Your task to perform on an android device: change the upload size in google photos Image 0: 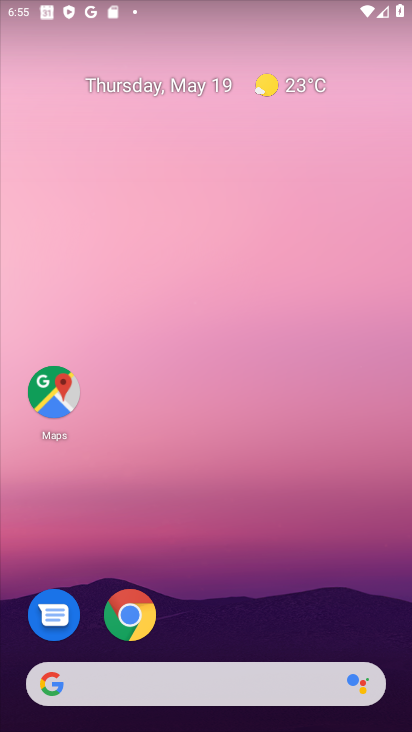
Step 0: drag from (314, 633) to (228, 49)
Your task to perform on an android device: change the upload size in google photos Image 1: 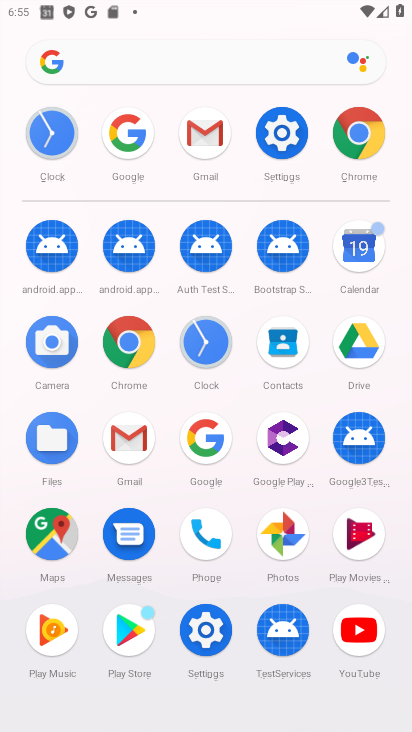
Step 1: click (278, 545)
Your task to perform on an android device: change the upload size in google photos Image 2: 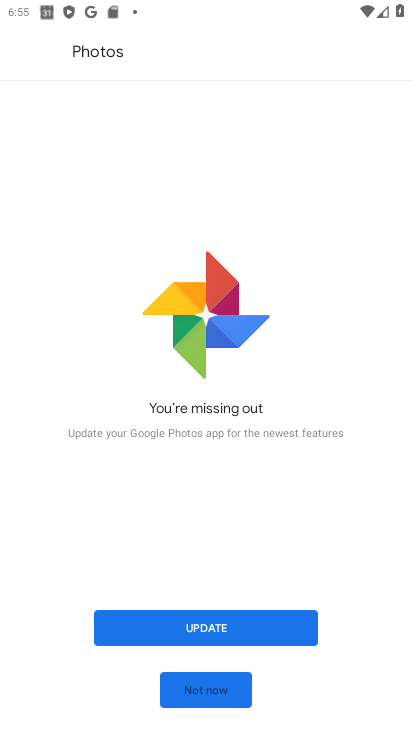
Step 2: click (238, 618)
Your task to perform on an android device: change the upload size in google photos Image 3: 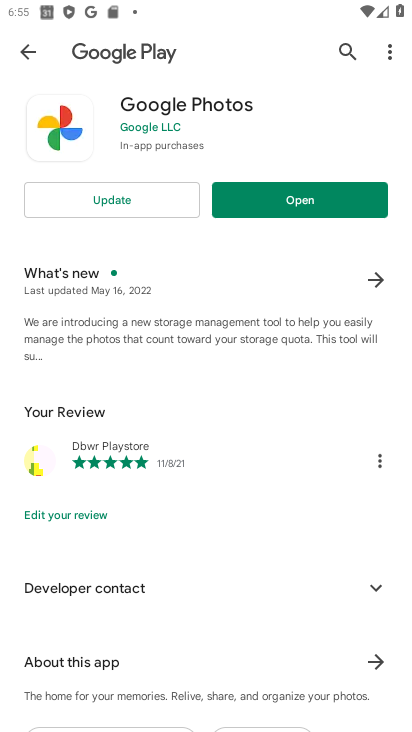
Step 3: click (135, 218)
Your task to perform on an android device: change the upload size in google photos Image 4: 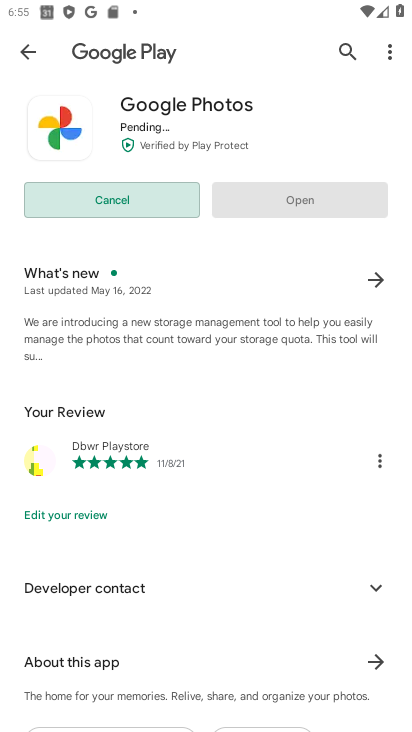
Step 4: click (136, 214)
Your task to perform on an android device: change the upload size in google photos Image 5: 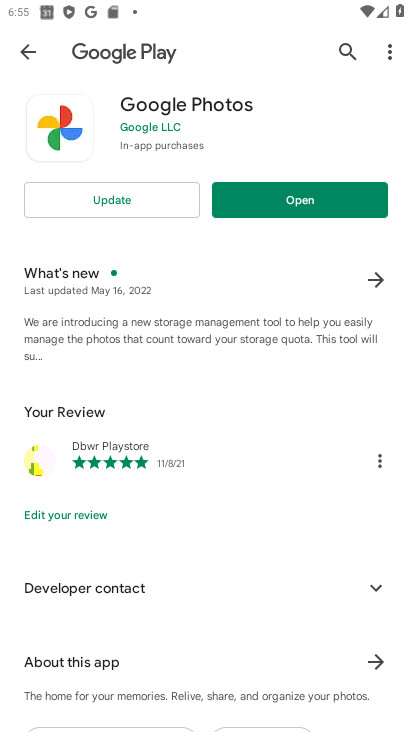
Step 5: click (146, 211)
Your task to perform on an android device: change the upload size in google photos Image 6: 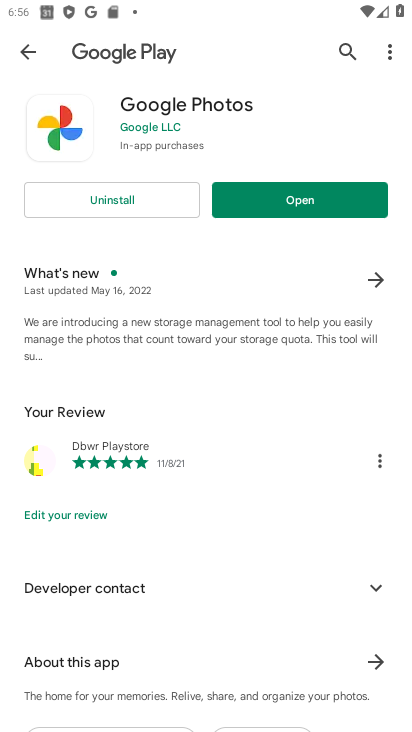
Step 6: click (280, 192)
Your task to perform on an android device: change the upload size in google photos Image 7: 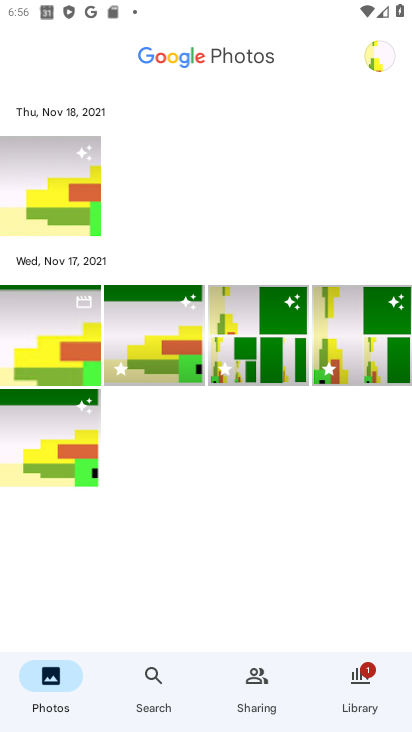
Step 7: click (382, 57)
Your task to perform on an android device: change the upload size in google photos Image 8: 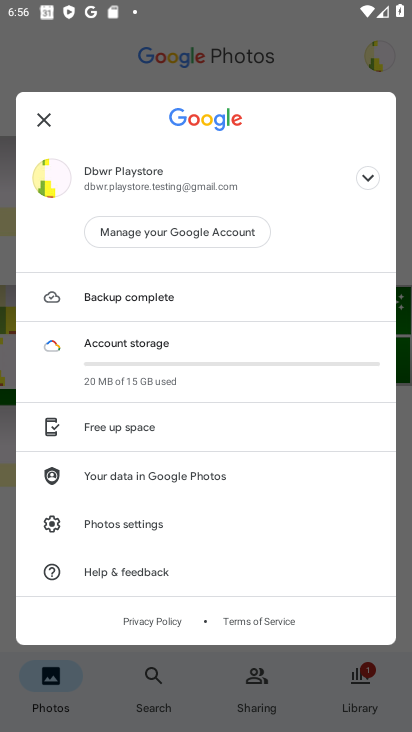
Step 8: click (198, 520)
Your task to perform on an android device: change the upload size in google photos Image 9: 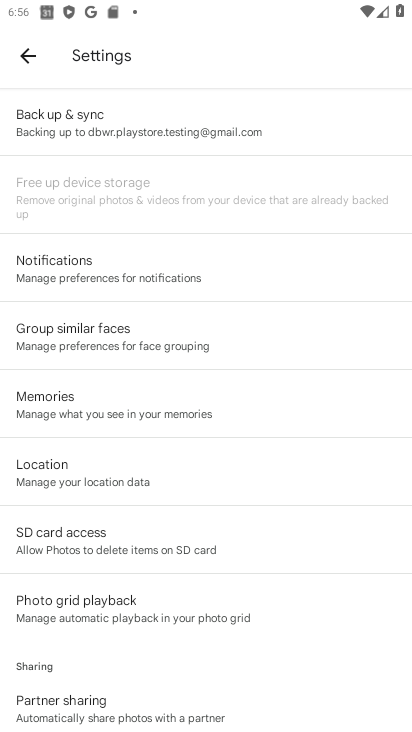
Step 9: click (256, 128)
Your task to perform on an android device: change the upload size in google photos Image 10: 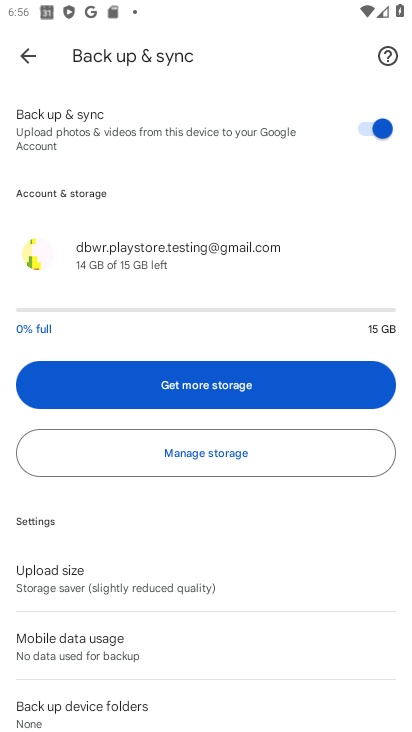
Step 10: click (197, 583)
Your task to perform on an android device: change the upload size in google photos Image 11: 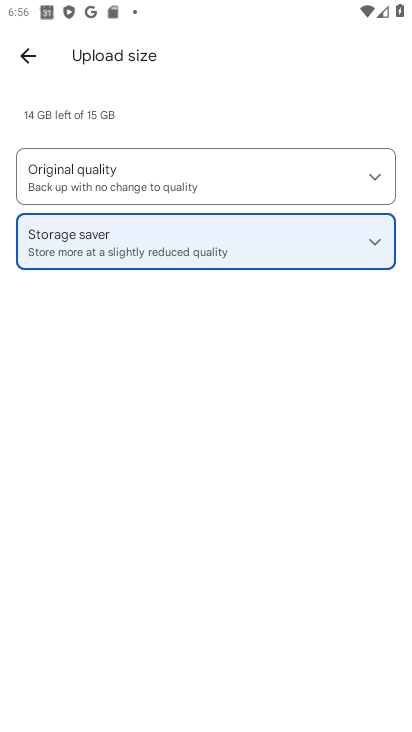
Step 11: click (362, 173)
Your task to perform on an android device: change the upload size in google photos Image 12: 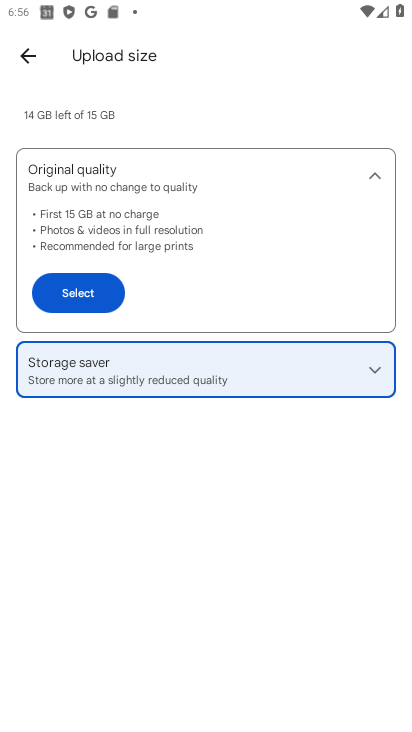
Step 12: click (96, 294)
Your task to perform on an android device: change the upload size in google photos Image 13: 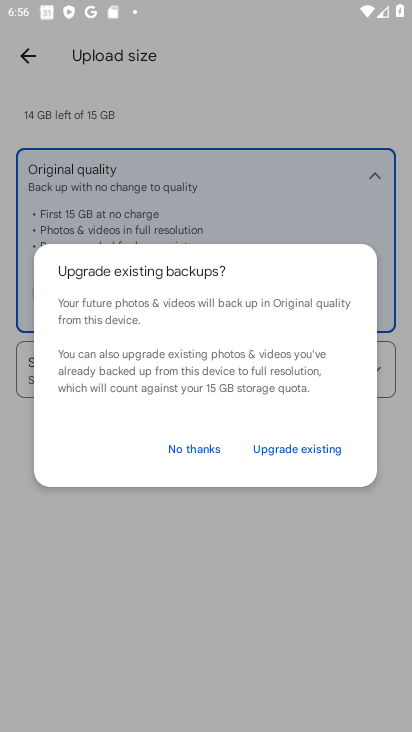
Step 13: click (277, 455)
Your task to perform on an android device: change the upload size in google photos Image 14: 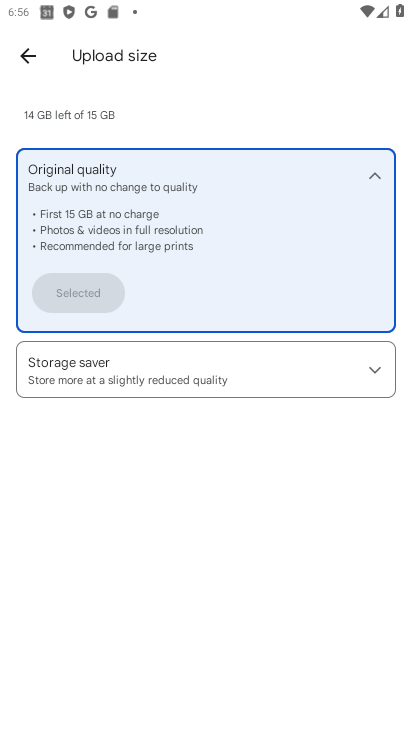
Step 14: task complete